Your task to perform on an android device: Open the calendar and show me this week's events Image 0: 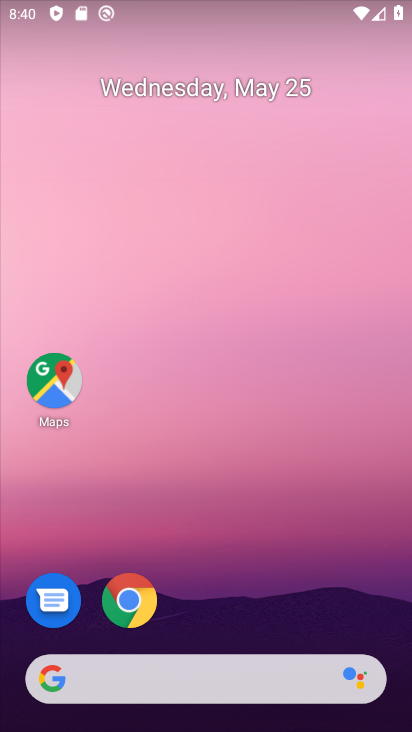
Step 0: drag from (227, 575) to (221, 24)
Your task to perform on an android device: Open the calendar and show me this week's events Image 1: 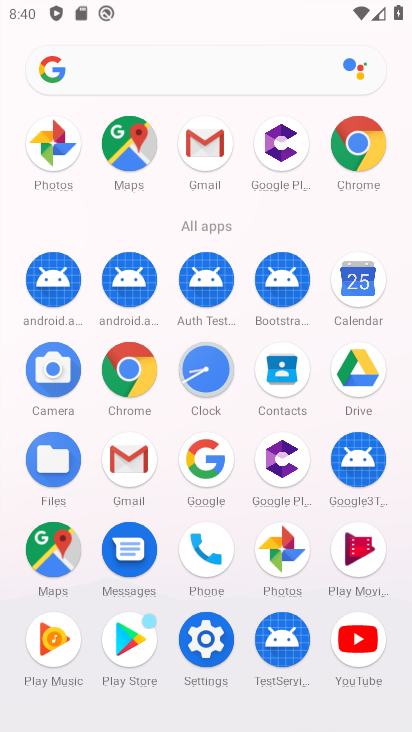
Step 1: drag from (8, 537) to (0, 315)
Your task to perform on an android device: Open the calendar and show me this week's events Image 2: 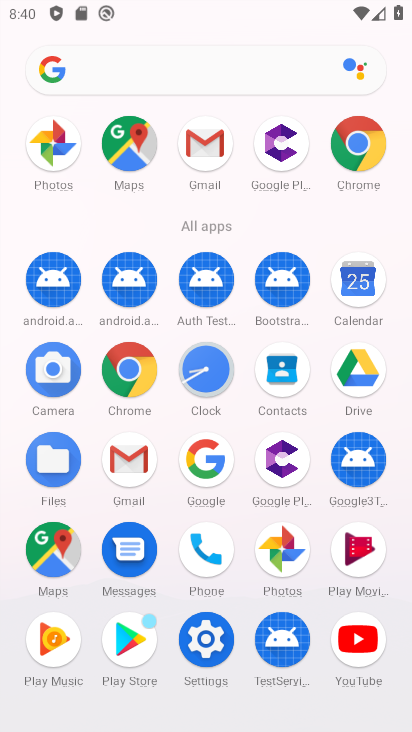
Step 2: click (355, 275)
Your task to perform on an android device: Open the calendar and show me this week's events Image 3: 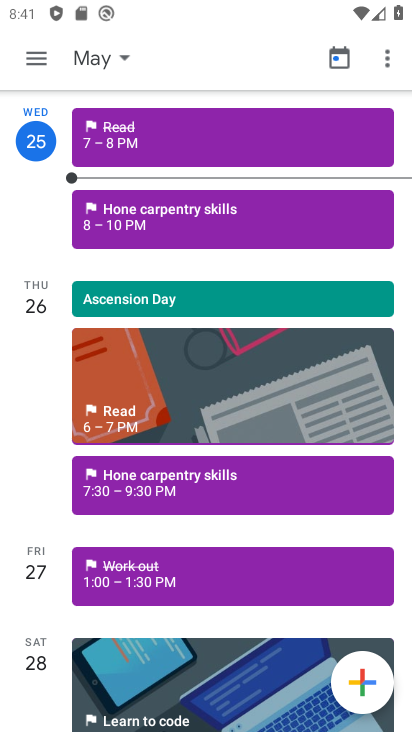
Step 3: click (37, 54)
Your task to perform on an android device: Open the calendar and show me this week's events Image 4: 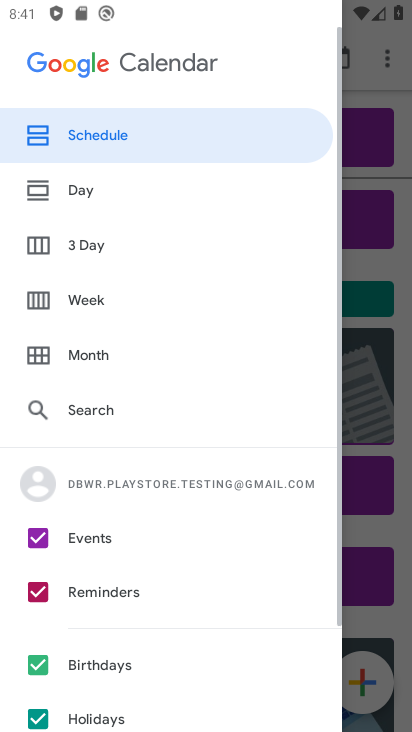
Step 4: click (106, 300)
Your task to perform on an android device: Open the calendar and show me this week's events Image 5: 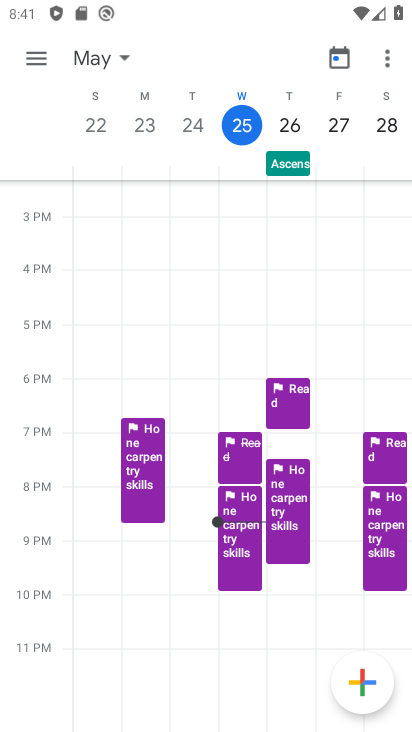
Step 5: task complete